Your task to perform on an android device: add a contact in the contacts app Image 0: 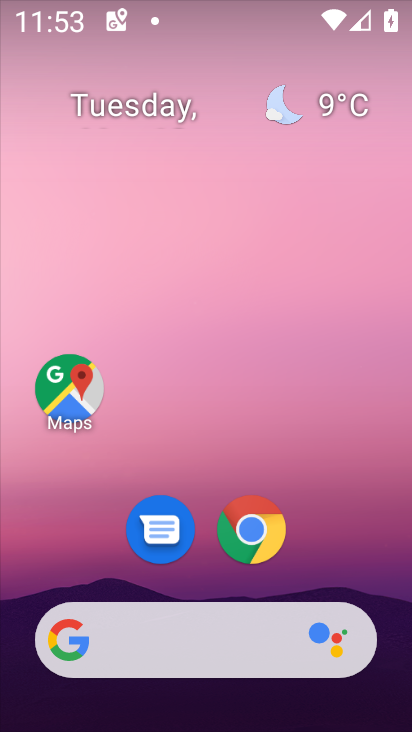
Step 0: drag from (333, 467) to (339, 193)
Your task to perform on an android device: add a contact in the contacts app Image 1: 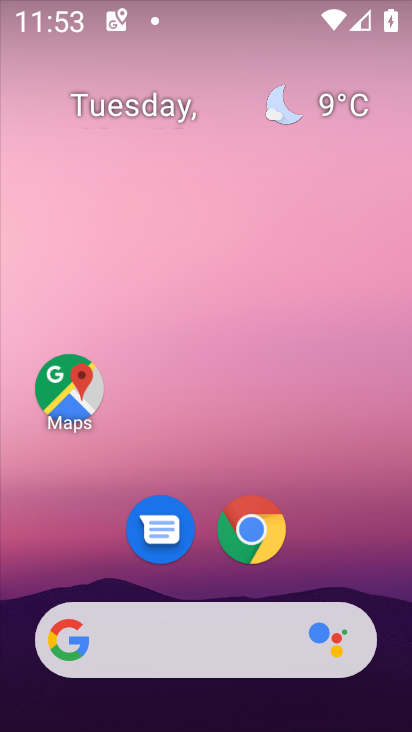
Step 1: drag from (347, 474) to (347, 42)
Your task to perform on an android device: add a contact in the contacts app Image 2: 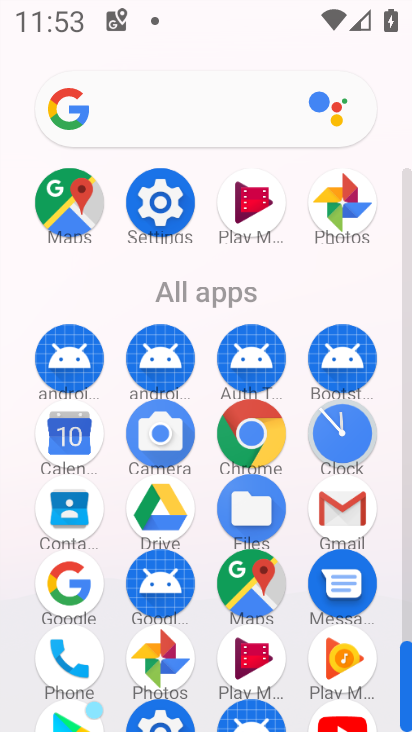
Step 2: click (75, 522)
Your task to perform on an android device: add a contact in the contacts app Image 3: 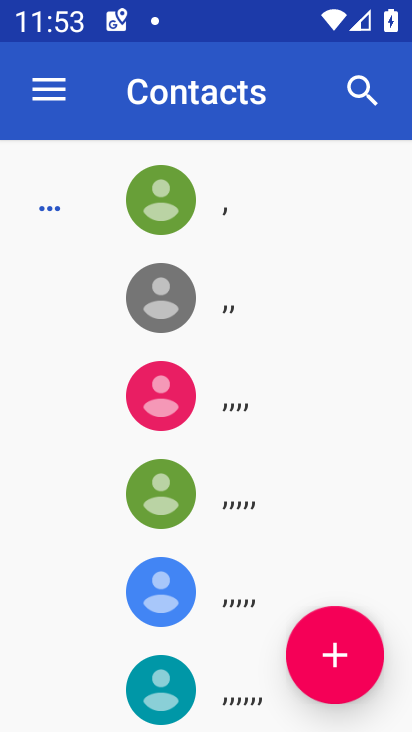
Step 3: click (327, 662)
Your task to perform on an android device: add a contact in the contacts app Image 4: 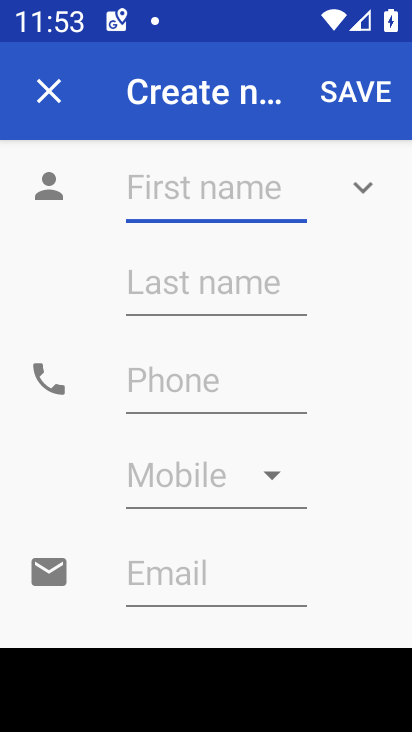
Step 4: type "connection no.1"
Your task to perform on an android device: add a contact in the contacts app Image 5: 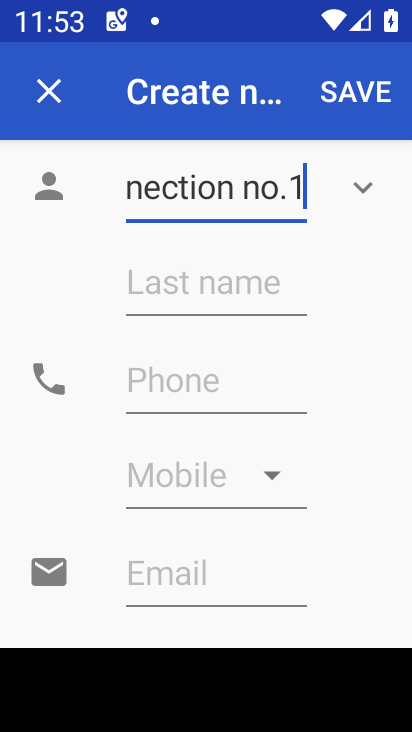
Step 5: click (199, 385)
Your task to perform on an android device: add a contact in the contacts app Image 6: 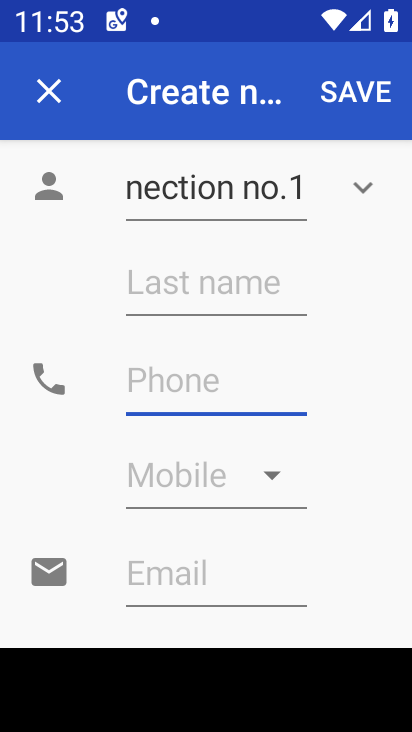
Step 6: type "687687668575"
Your task to perform on an android device: add a contact in the contacts app Image 7: 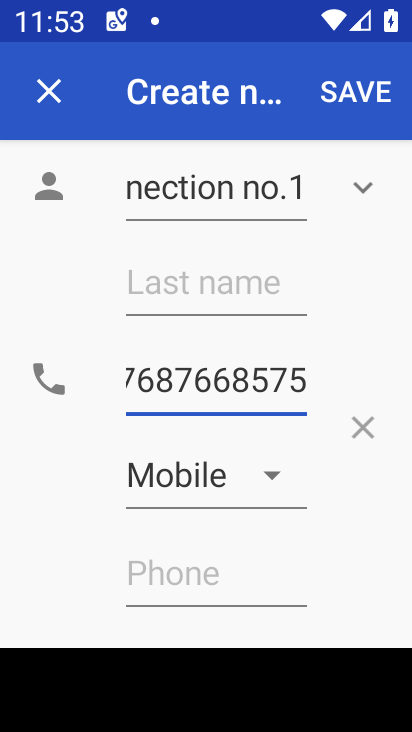
Step 7: click (371, 102)
Your task to perform on an android device: add a contact in the contacts app Image 8: 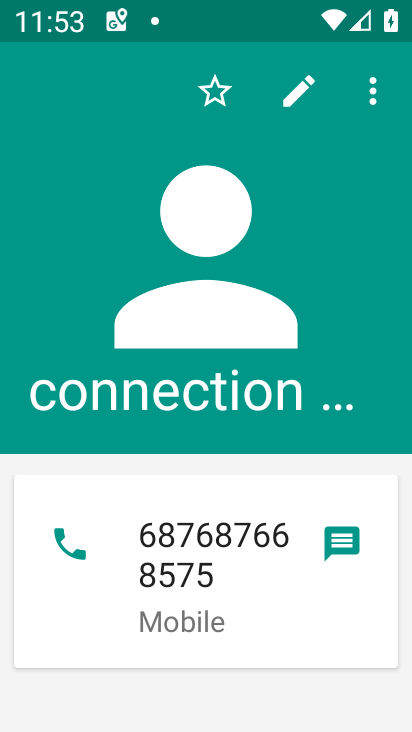
Step 8: task complete